Your task to perform on an android device: change the clock display to analog Image 0: 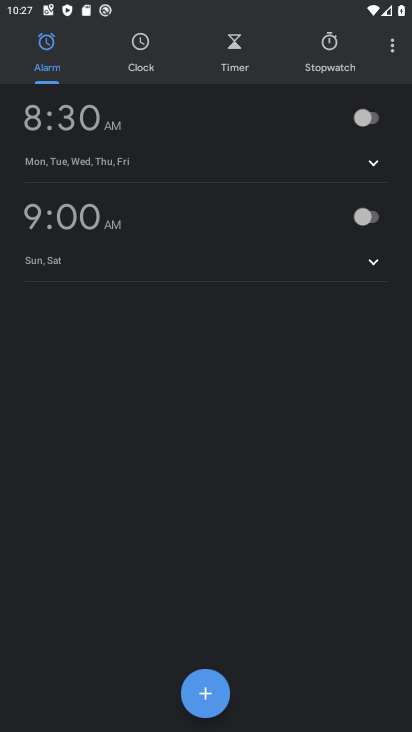
Step 0: press home button
Your task to perform on an android device: change the clock display to analog Image 1: 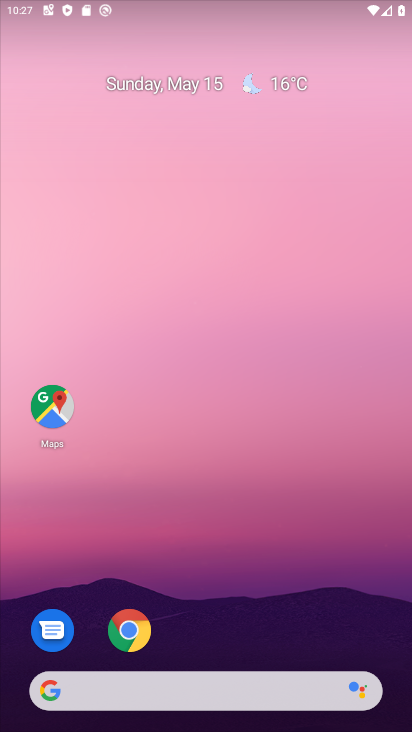
Step 1: drag from (209, 643) to (214, 175)
Your task to perform on an android device: change the clock display to analog Image 2: 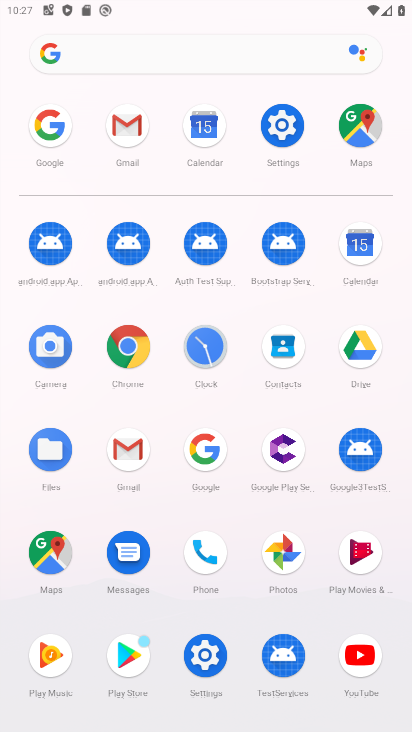
Step 2: click (193, 346)
Your task to perform on an android device: change the clock display to analog Image 3: 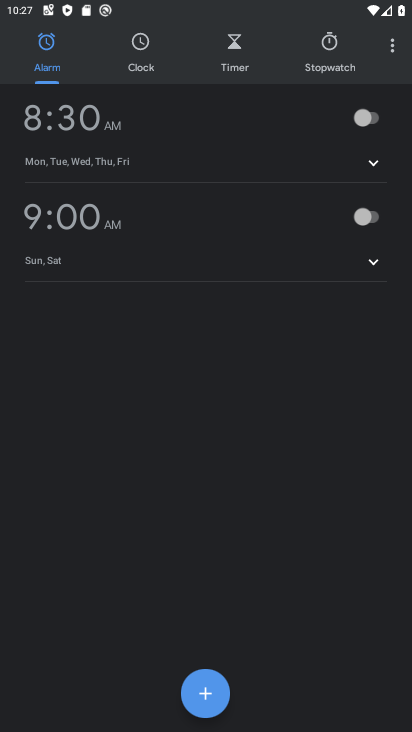
Step 3: click (385, 42)
Your task to perform on an android device: change the clock display to analog Image 4: 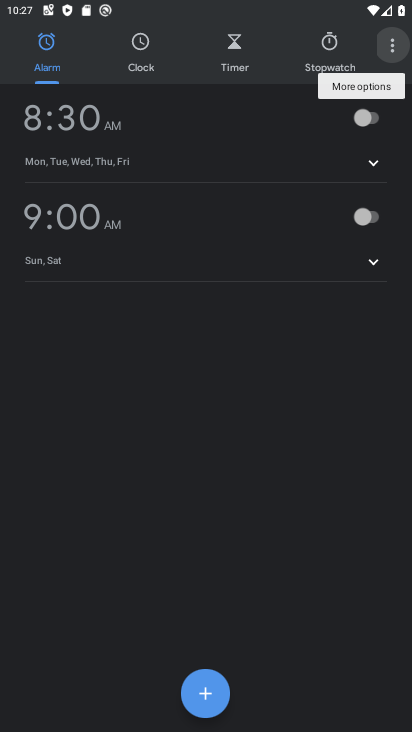
Step 4: click (397, 44)
Your task to perform on an android device: change the clock display to analog Image 5: 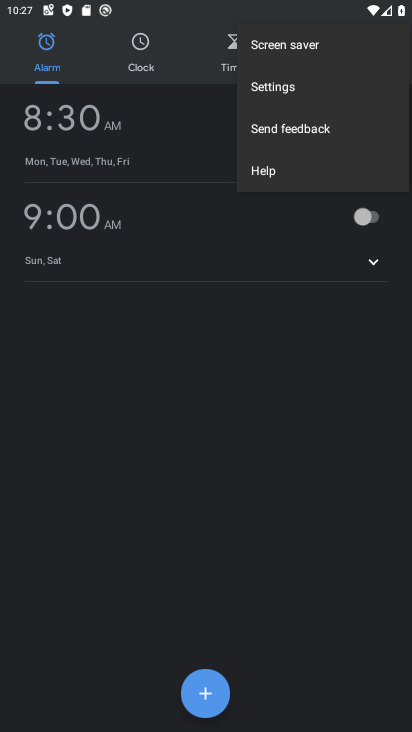
Step 5: click (291, 95)
Your task to perform on an android device: change the clock display to analog Image 6: 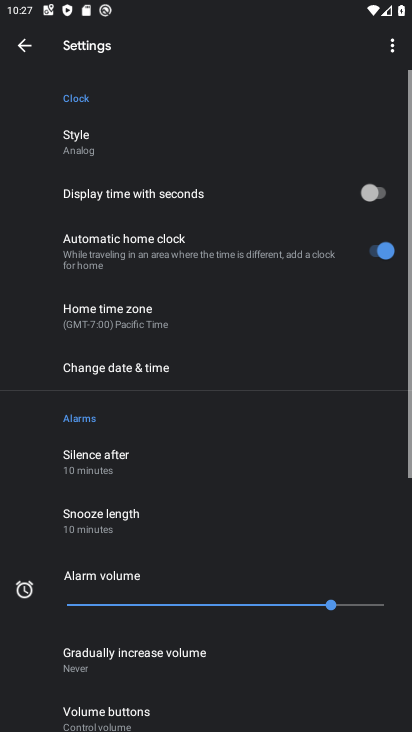
Step 6: click (73, 144)
Your task to perform on an android device: change the clock display to analog Image 7: 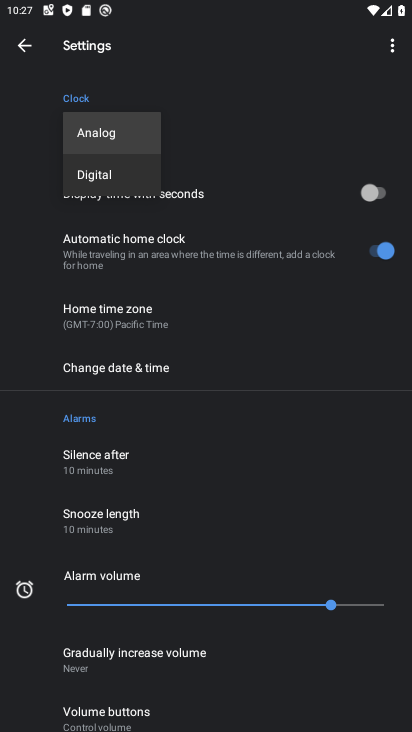
Step 7: task complete